Your task to perform on an android device: check android version Image 0: 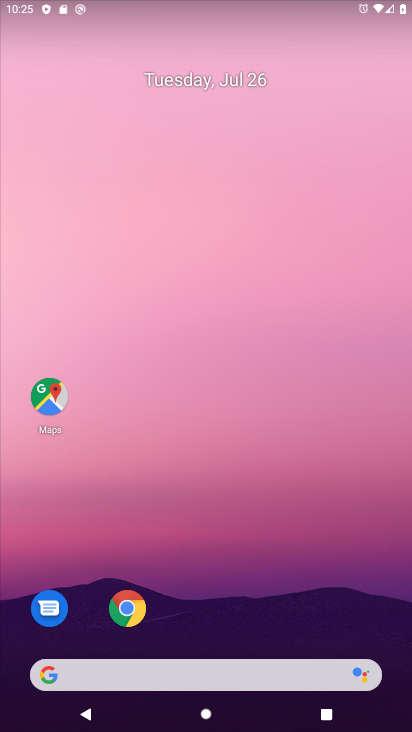
Step 0: drag from (233, 704) to (250, 261)
Your task to perform on an android device: check android version Image 1: 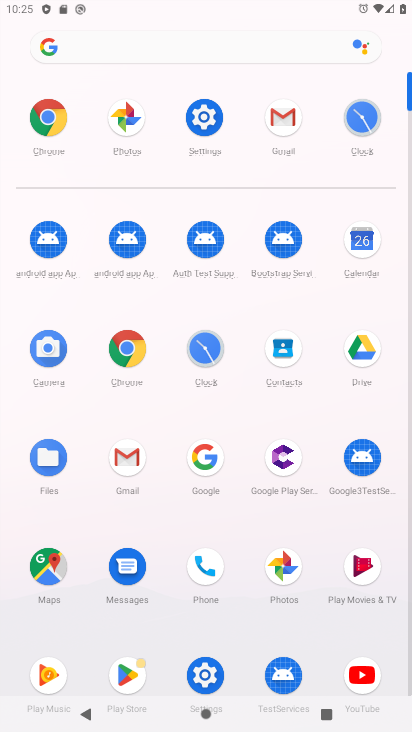
Step 1: click (204, 117)
Your task to perform on an android device: check android version Image 2: 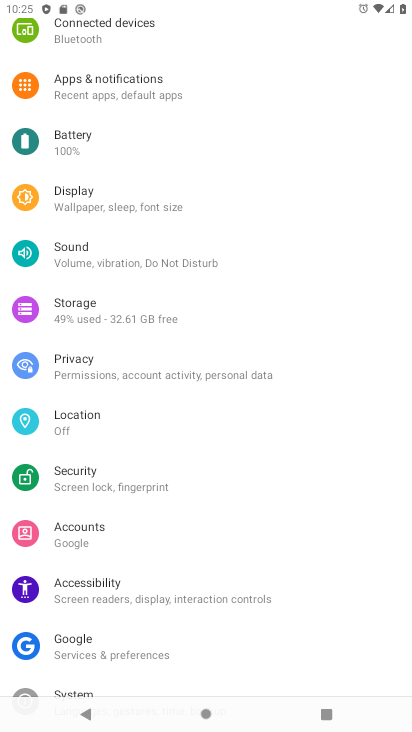
Step 2: drag from (101, 663) to (99, 264)
Your task to perform on an android device: check android version Image 3: 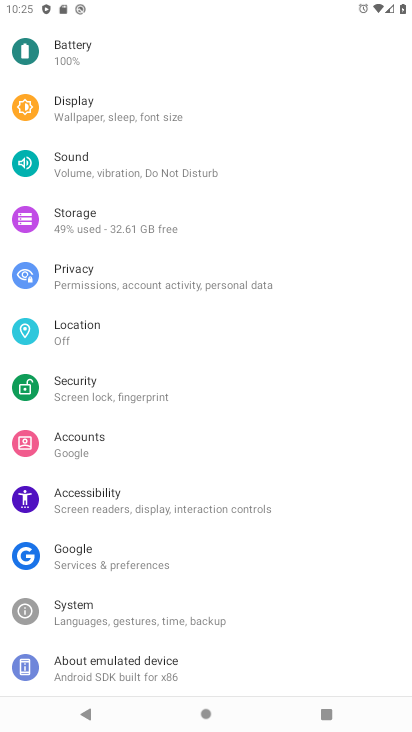
Step 3: click (93, 662)
Your task to perform on an android device: check android version Image 4: 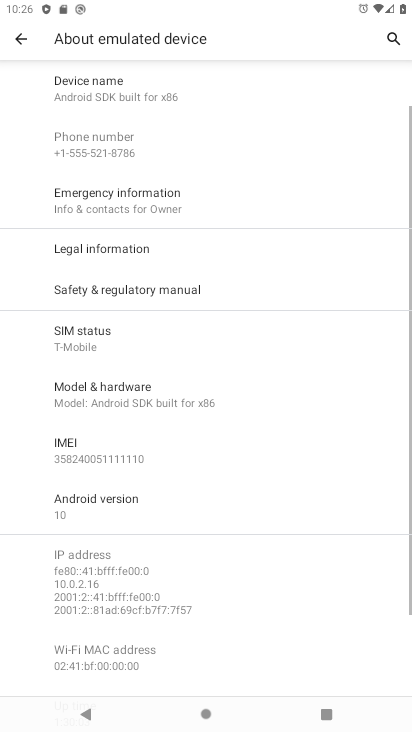
Step 4: click (81, 501)
Your task to perform on an android device: check android version Image 5: 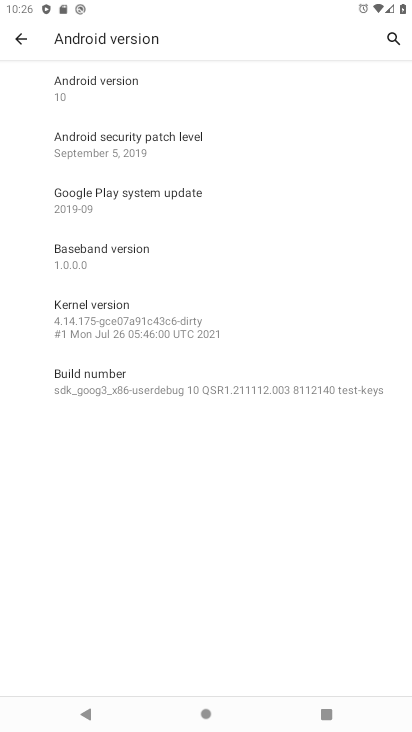
Step 5: task complete